Your task to perform on an android device: Open Google Chrome and open the bookmarks view Image 0: 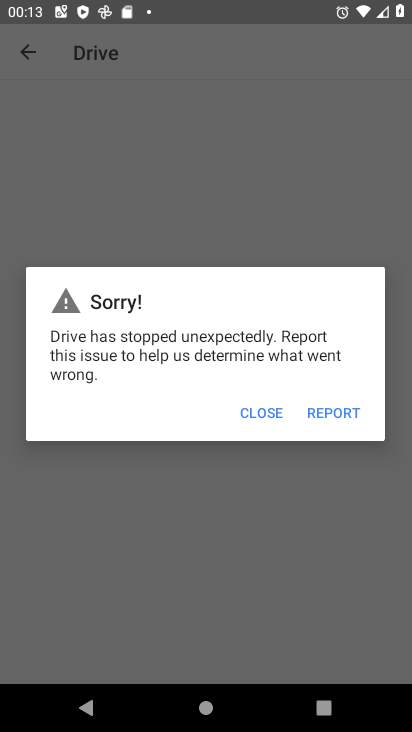
Step 0: press home button
Your task to perform on an android device: Open Google Chrome and open the bookmarks view Image 1: 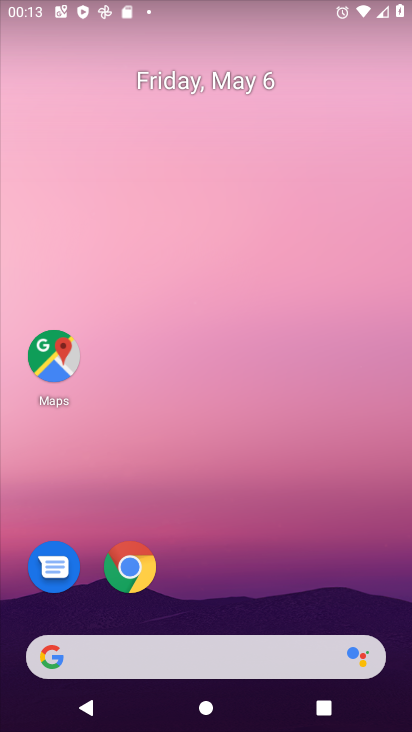
Step 1: click (145, 570)
Your task to perform on an android device: Open Google Chrome and open the bookmarks view Image 2: 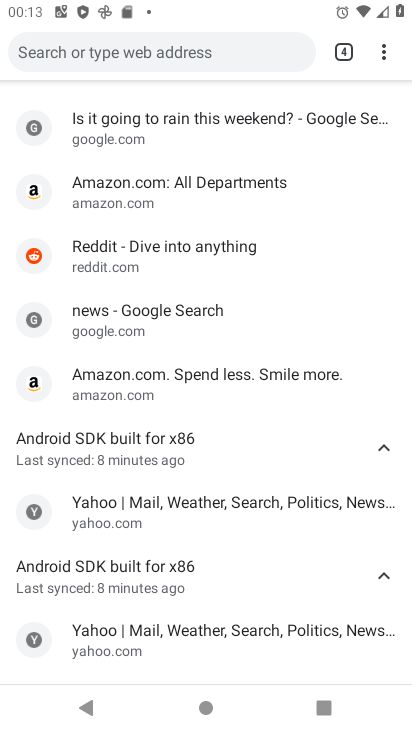
Step 2: task complete